Your task to perform on an android device: open app "DuckDuckGo Privacy Browser" Image 0: 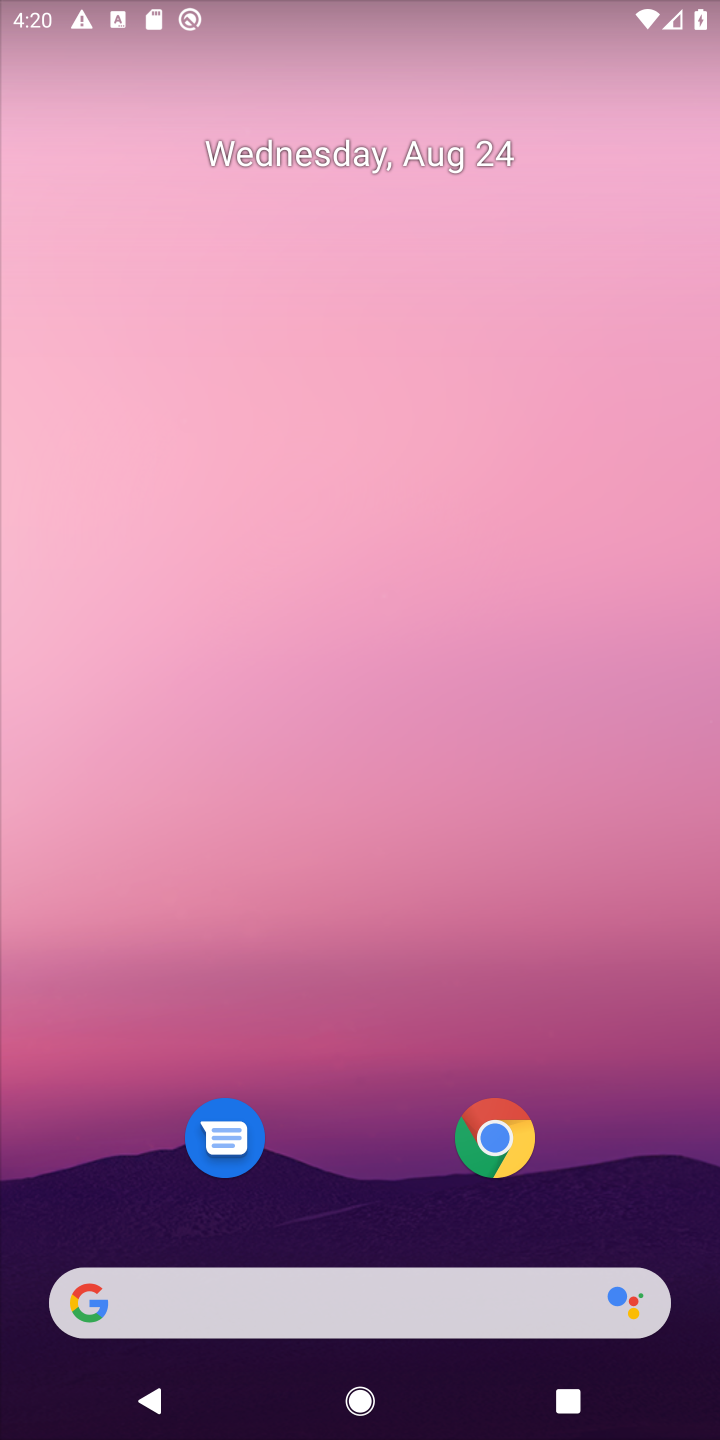
Step 0: drag from (340, 1154) to (306, 62)
Your task to perform on an android device: open app "DuckDuckGo Privacy Browser" Image 1: 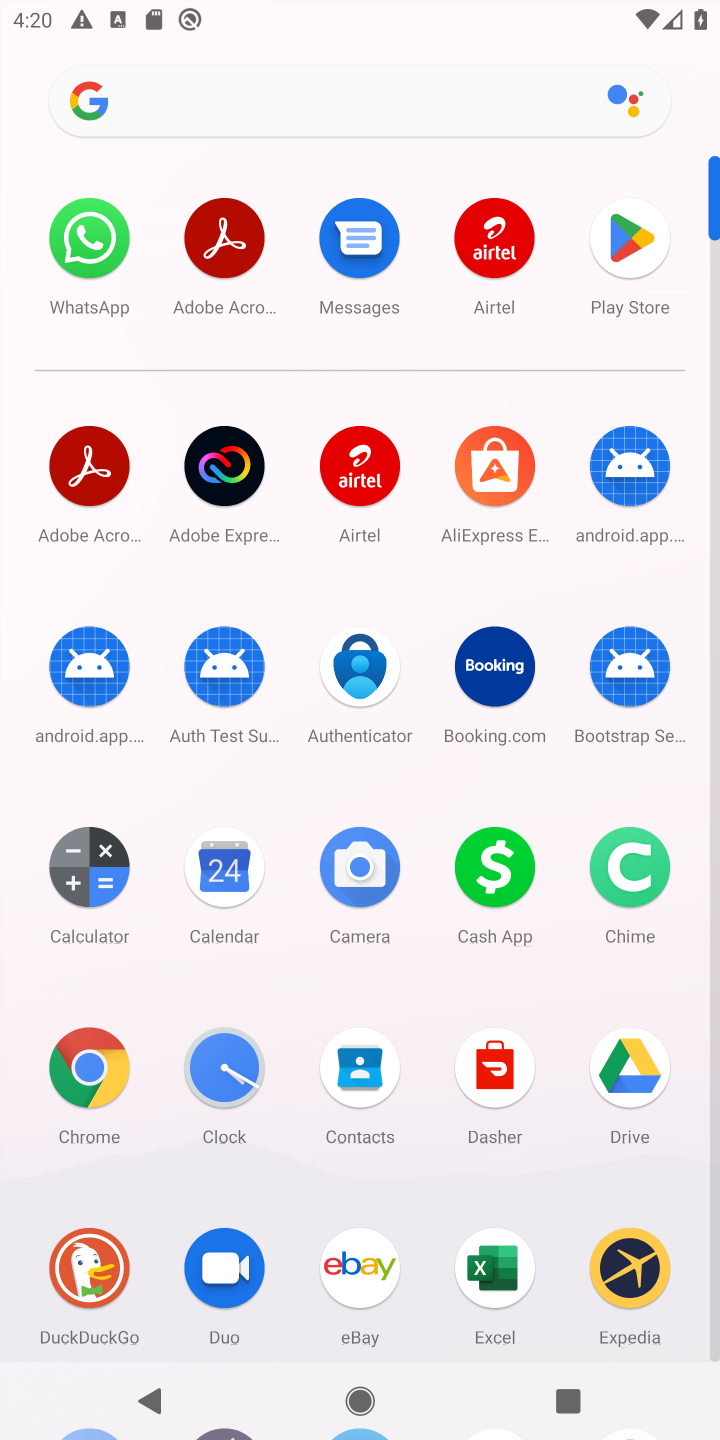
Step 1: click (622, 243)
Your task to perform on an android device: open app "DuckDuckGo Privacy Browser" Image 2: 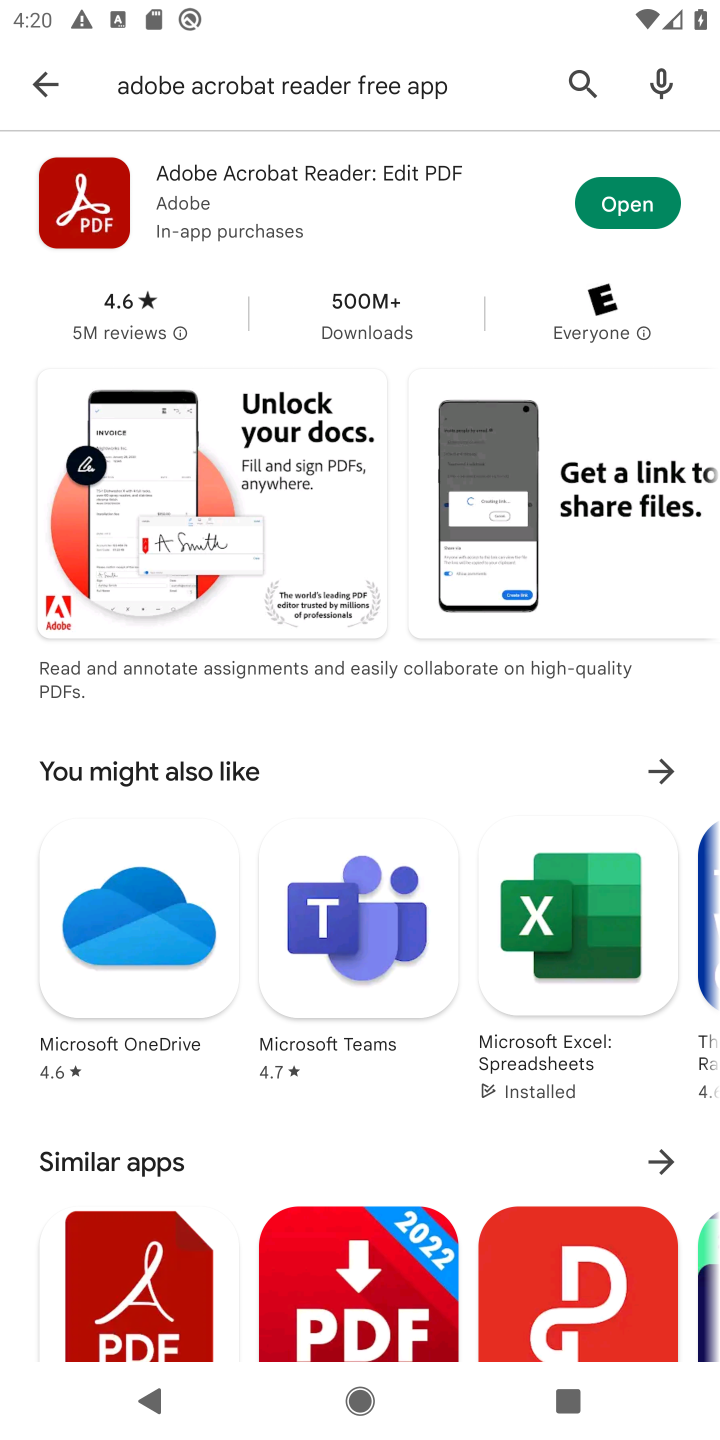
Step 2: click (587, 60)
Your task to perform on an android device: open app "DuckDuckGo Privacy Browser" Image 3: 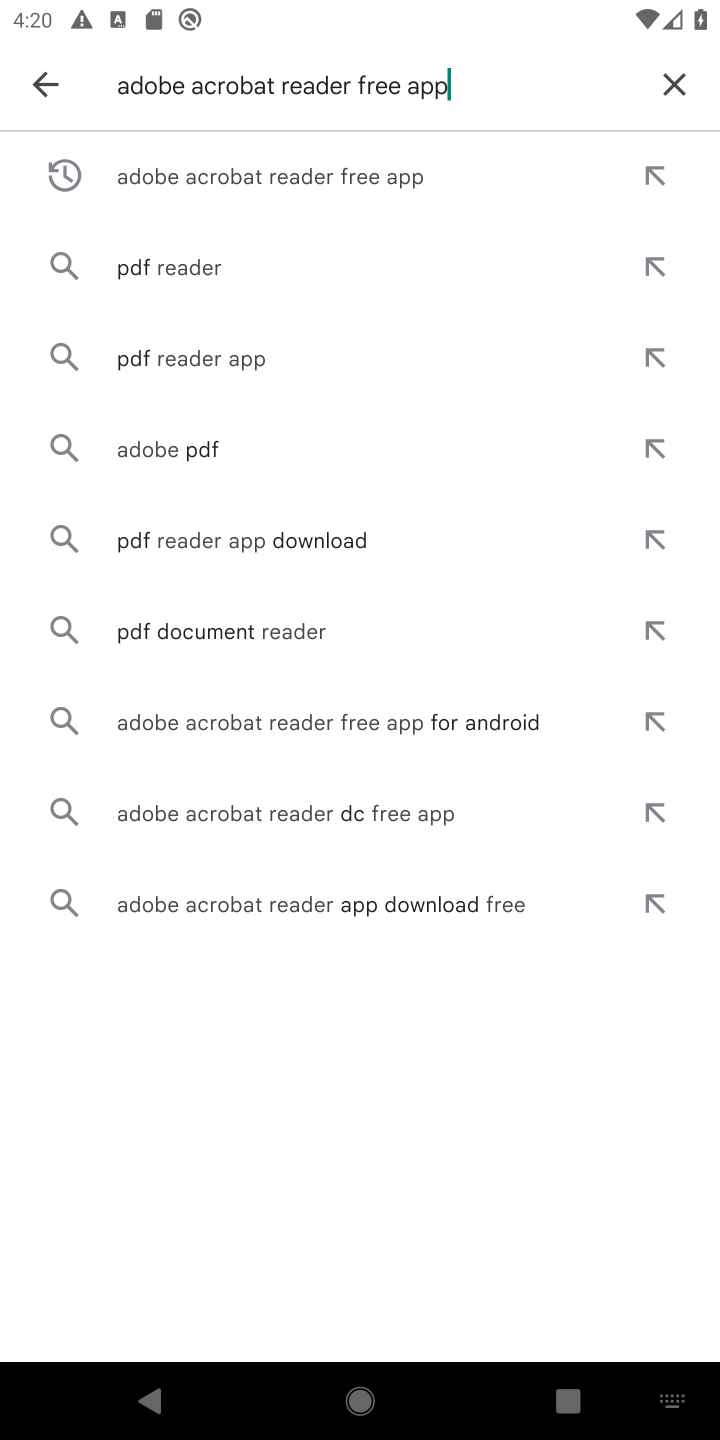
Step 3: click (679, 71)
Your task to perform on an android device: open app "DuckDuckGo Privacy Browser" Image 4: 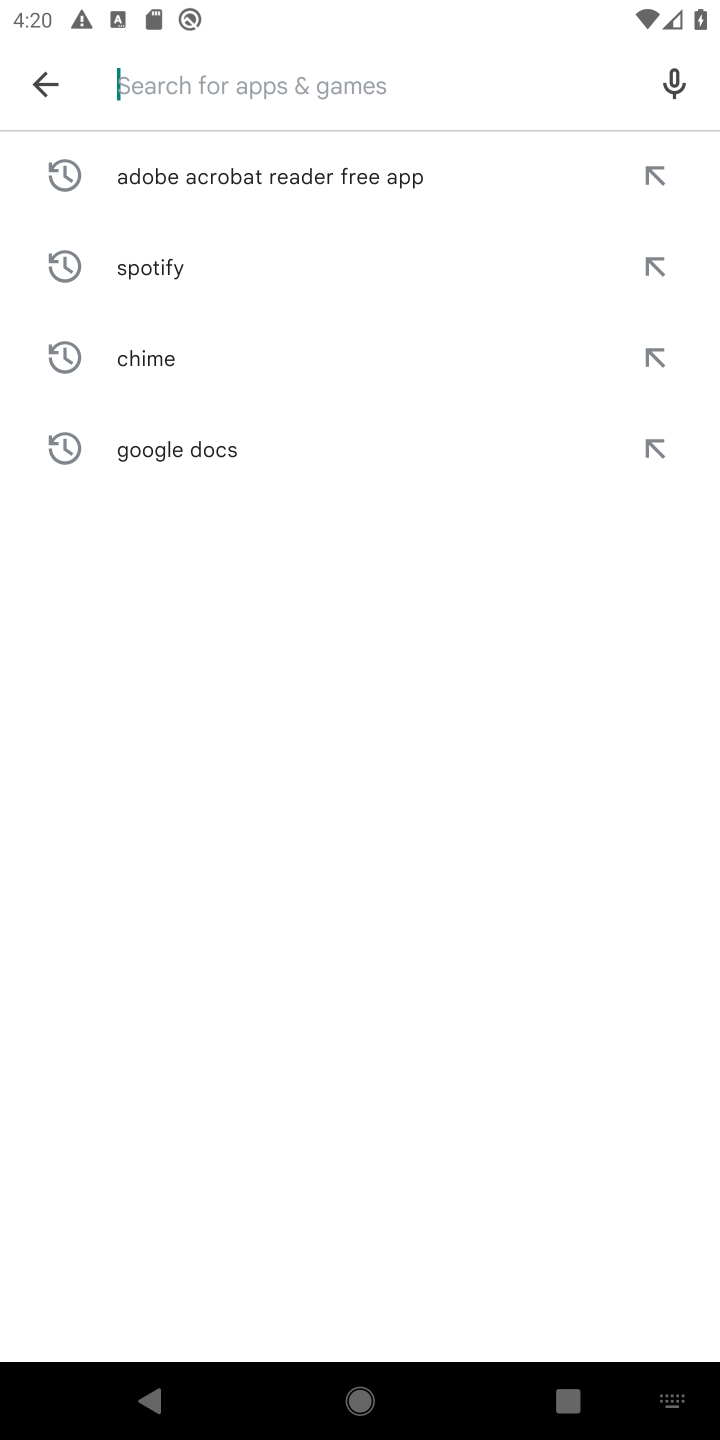
Step 4: type "DuckDuckGo Privacy Browser"
Your task to perform on an android device: open app "DuckDuckGo Privacy Browser" Image 5: 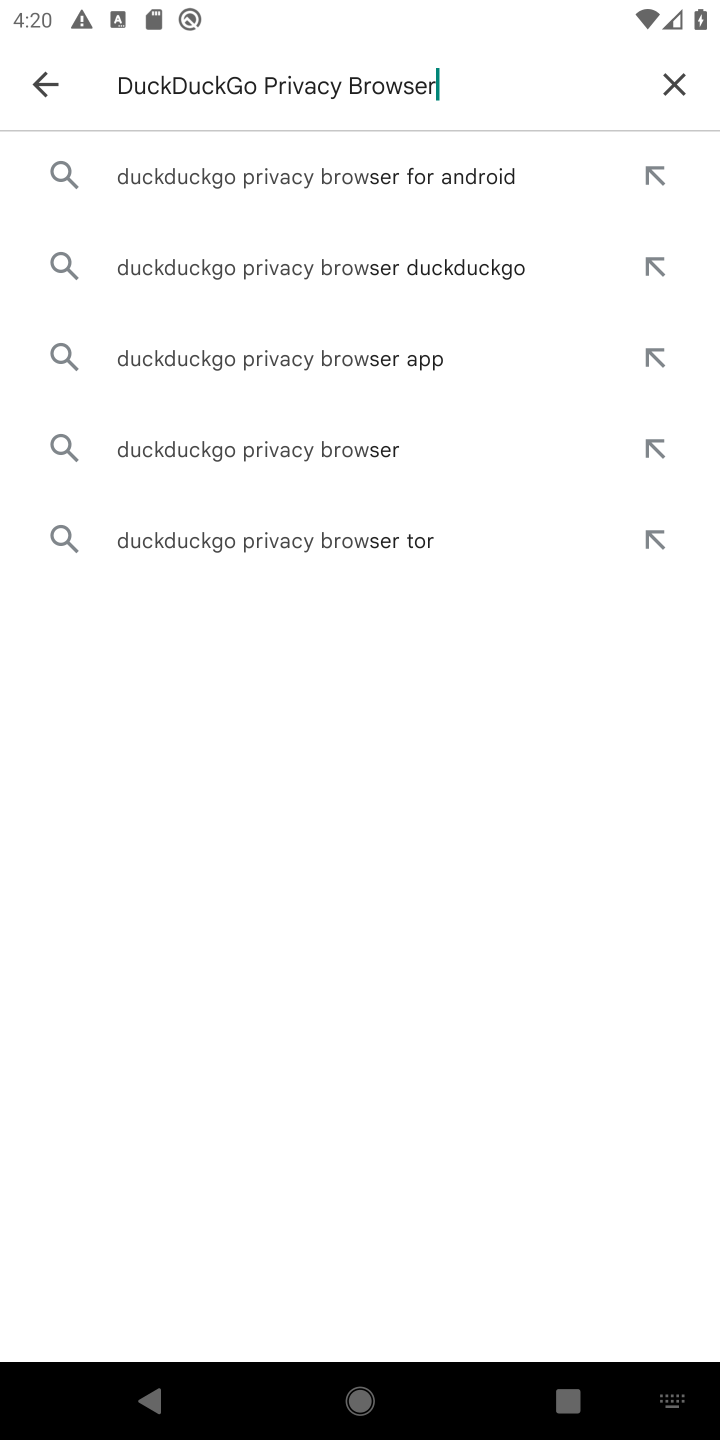
Step 5: type ""
Your task to perform on an android device: open app "DuckDuckGo Privacy Browser" Image 6: 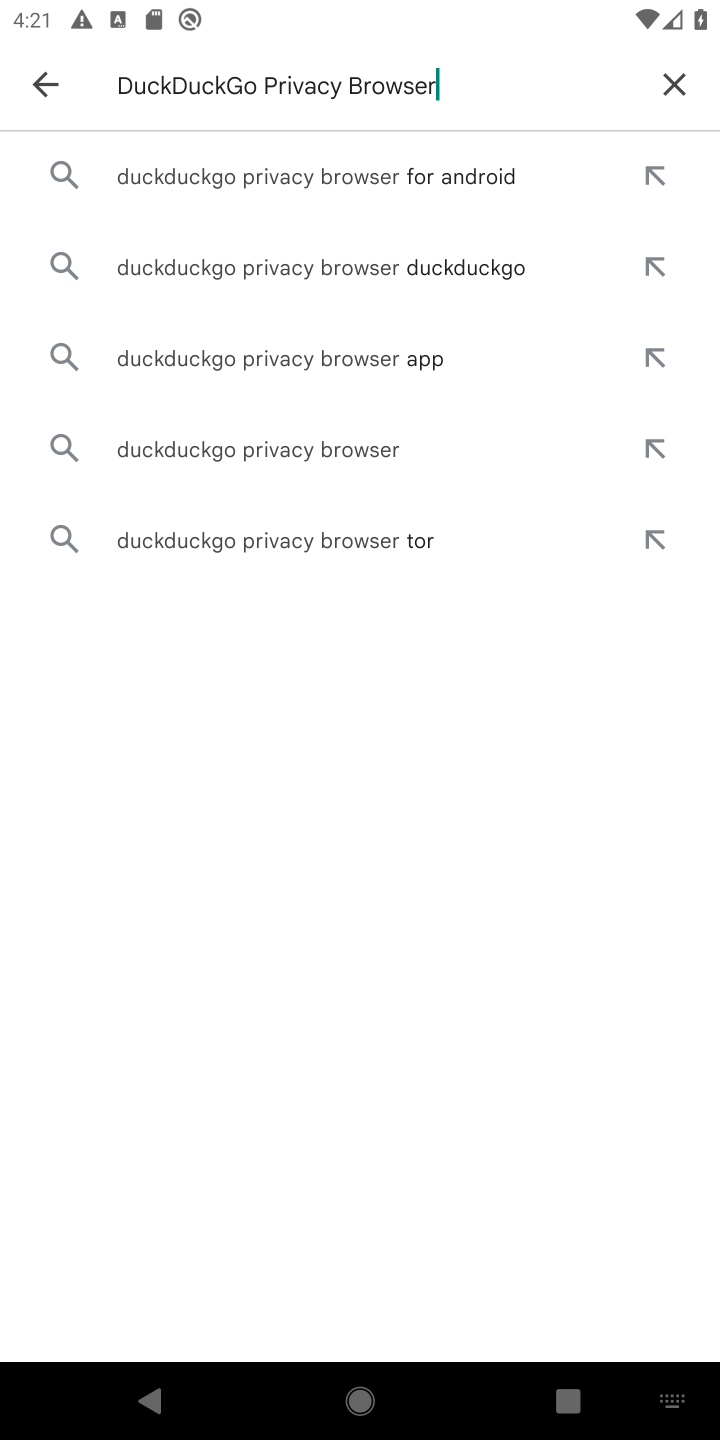
Step 6: click (231, 176)
Your task to perform on an android device: open app "DuckDuckGo Privacy Browser" Image 7: 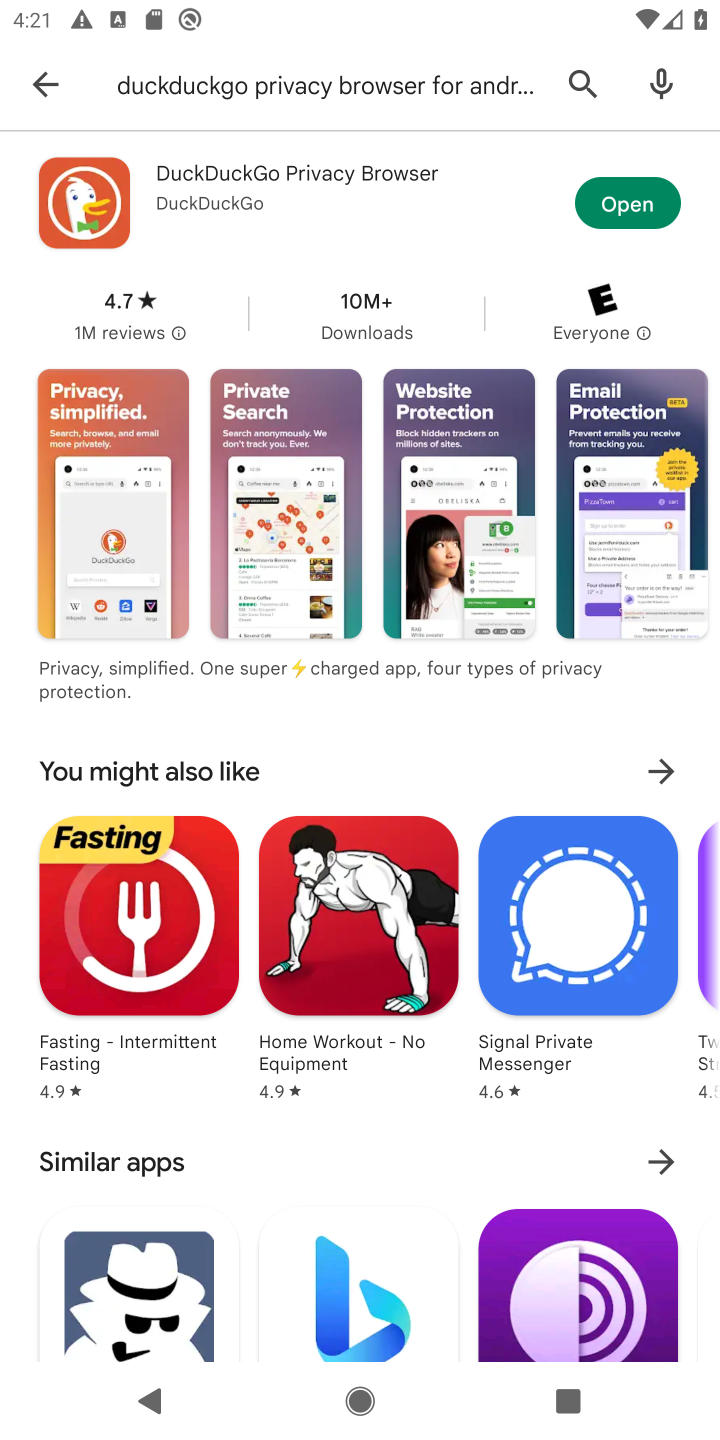
Step 7: click (648, 199)
Your task to perform on an android device: open app "DuckDuckGo Privacy Browser" Image 8: 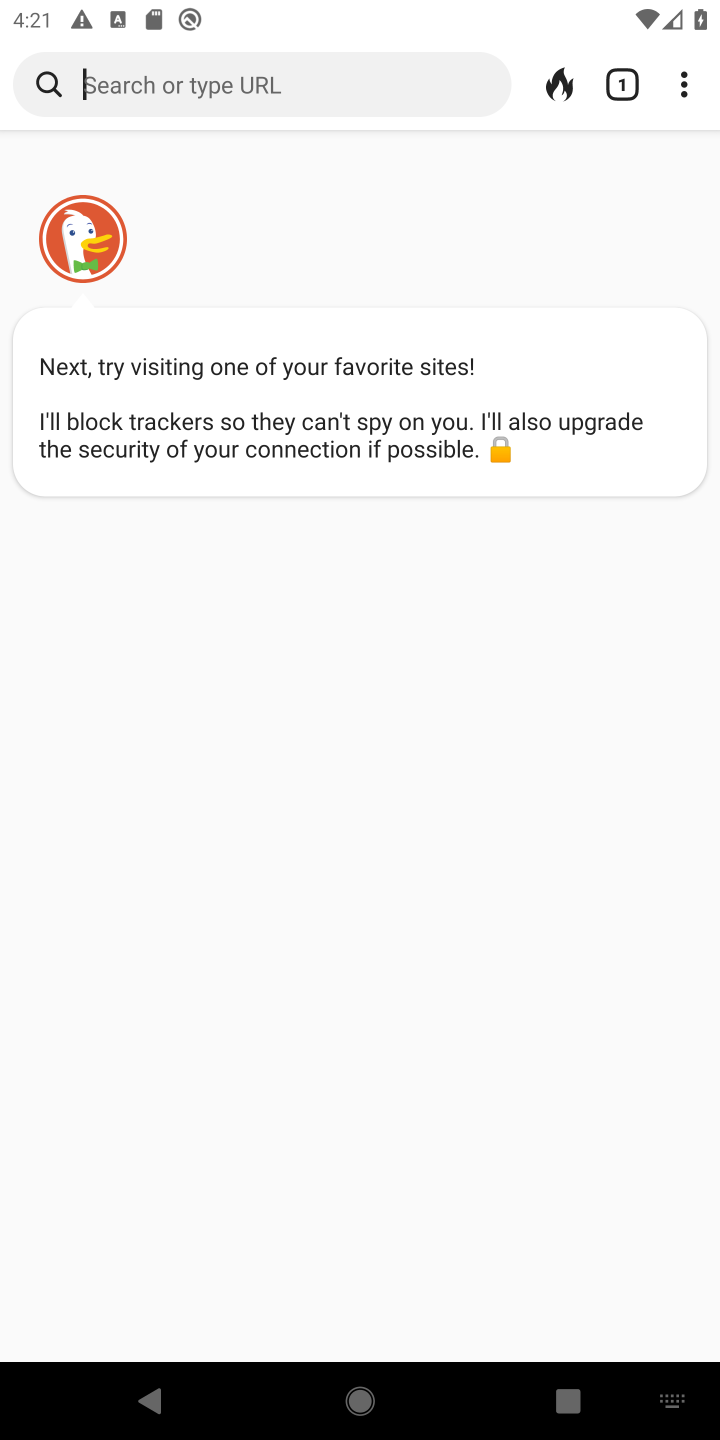
Step 8: task complete